Your task to perform on an android device: Do I have any events today? Image 0: 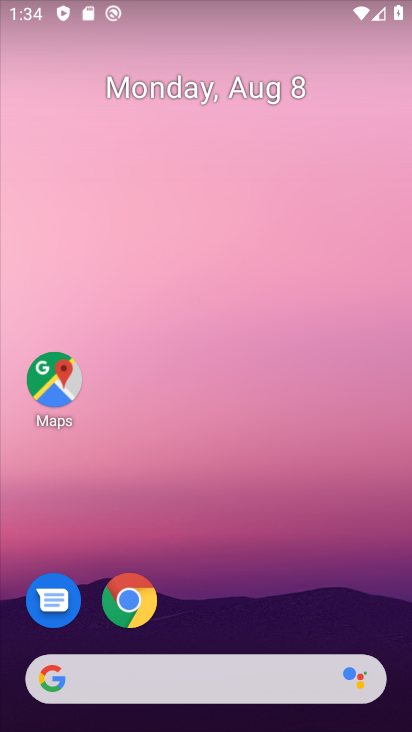
Step 0: press home button
Your task to perform on an android device: Do I have any events today? Image 1: 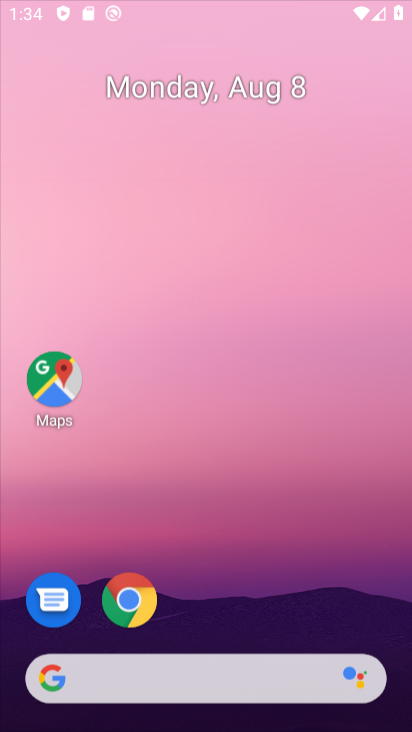
Step 1: drag from (224, 605) to (215, 58)
Your task to perform on an android device: Do I have any events today? Image 2: 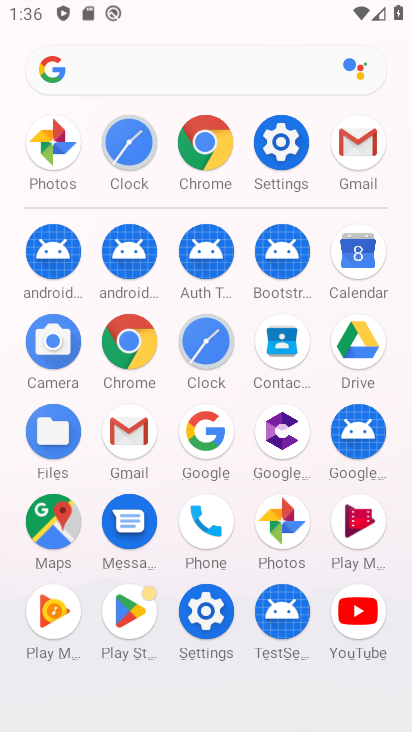
Step 2: click (372, 268)
Your task to perform on an android device: Do I have any events today? Image 3: 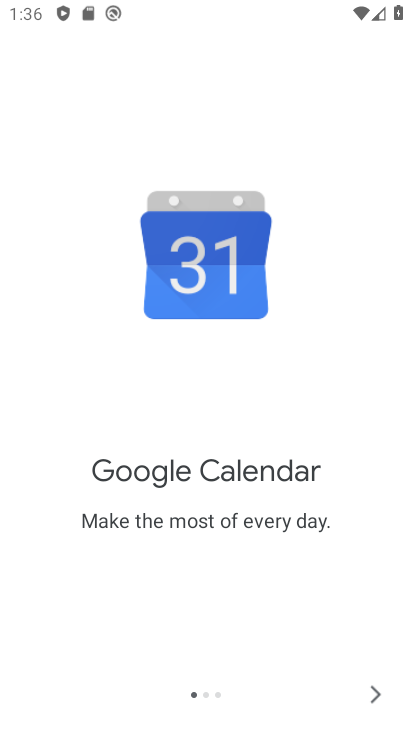
Step 3: click (372, 697)
Your task to perform on an android device: Do I have any events today? Image 4: 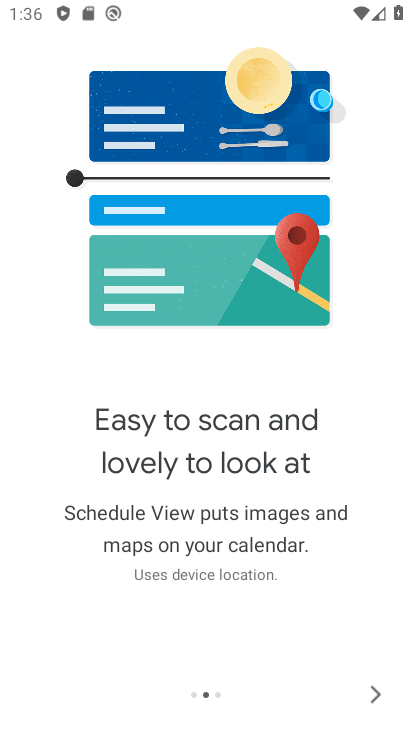
Step 4: click (384, 688)
Your task to perform on an android device: Do I have any events today? Image 5: 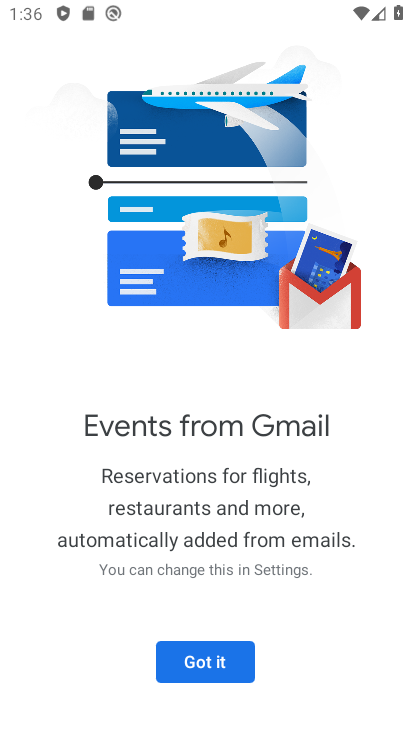
Step 5: click (207, 679)
Your task to perform on an android device: Do I have any events today? Image 6: 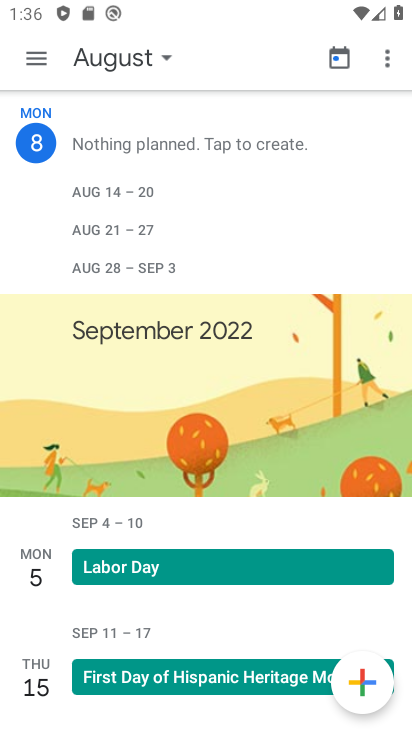
Step 6: click (139, 74)
Your task to perform on an android device: Do I have any events today? Image 7: 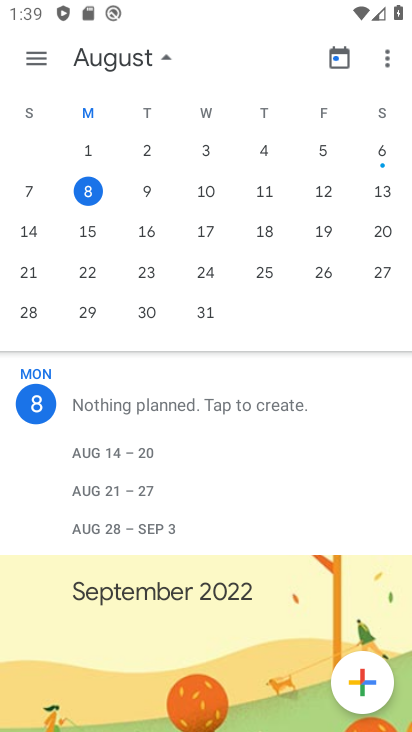
Step 7: task complete